Your task to perform on an android device: Add "dell xps" to the cart on newegg.com, then select checkout. Image 0: 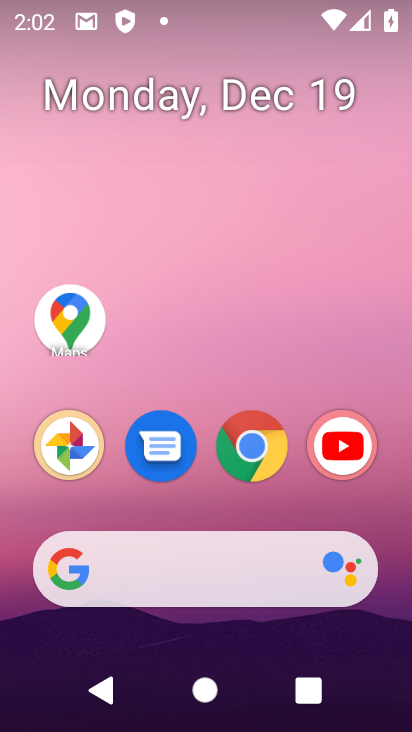
Step 0: click (229, 435)
Your task to perform on an android device: Add "dell xps" to the cart on newegg.com, then select checkout. Image 1: 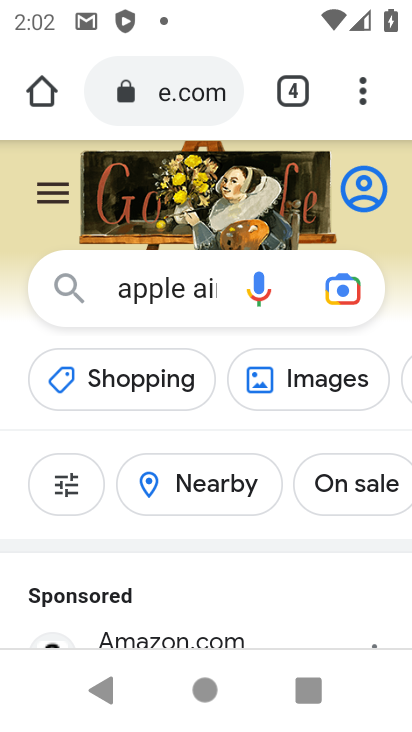
Step 1: click (149, 73)
Your task to perform on an android device: Add "dell xps" to the cart on newegg.com, then select checkout. Image 2: 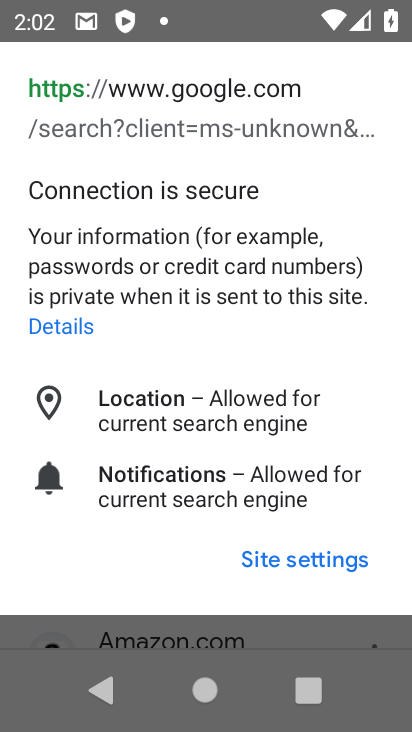
Step 2: task complete